Your task to perform on an android device: Open wifi settings Image 0: 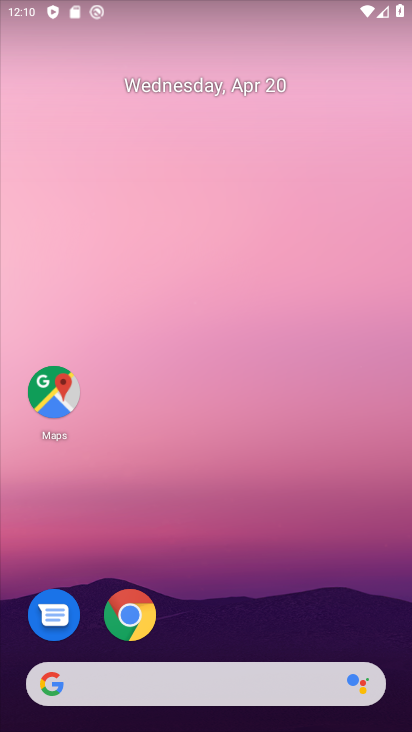
Step 0: drag from (186, 579) to (179, 137)
Your task to perform on an android device: Open wifi settings Image 1: 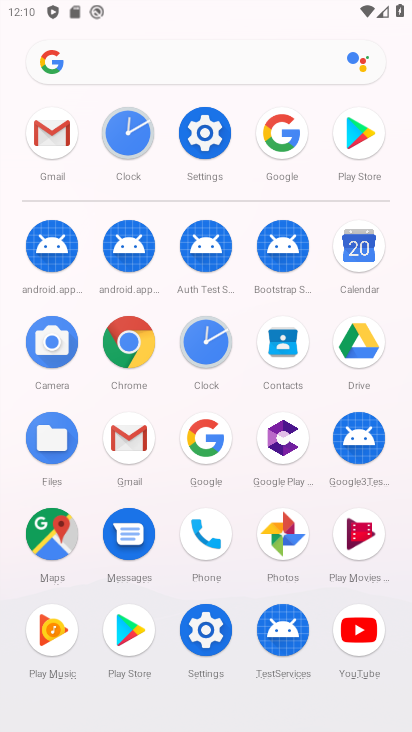
Step 1: click (197, 134)
Your task to perform on an android device: Open wifi settings Image 2: 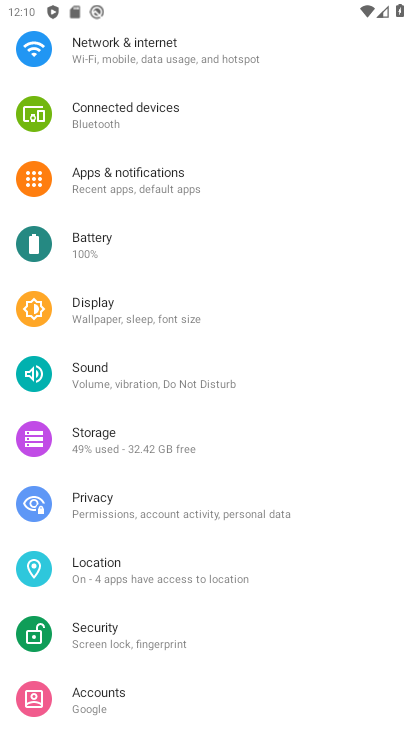
Step 2: drag from (134, 65) to (163, 507)
Your task to perform on an android device: Open wifi settings Image 3: 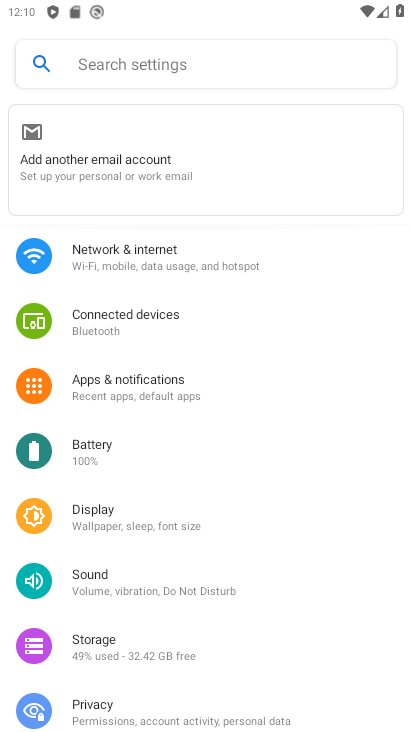
Step 3: click (111, 263)
Your task to perform on an android device: Open wifi settings Image 4: 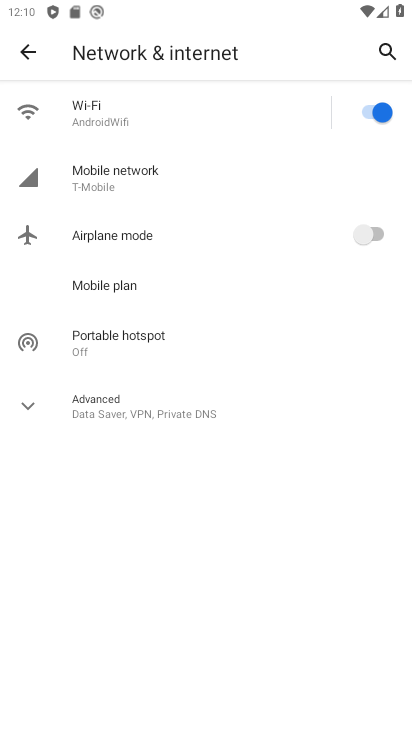
Step 4: click (130, 101)
Your task to perform on an android device: Open wifi settings Image 5: 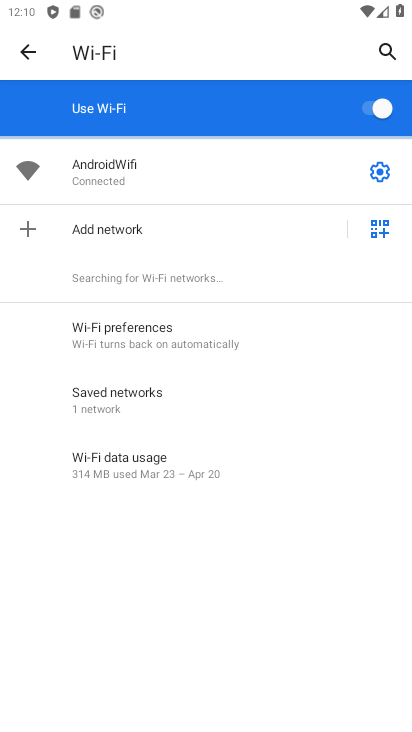
Step 5: click (384, 168)
Your task to perform on an android device: Open wifi settings Image 6: 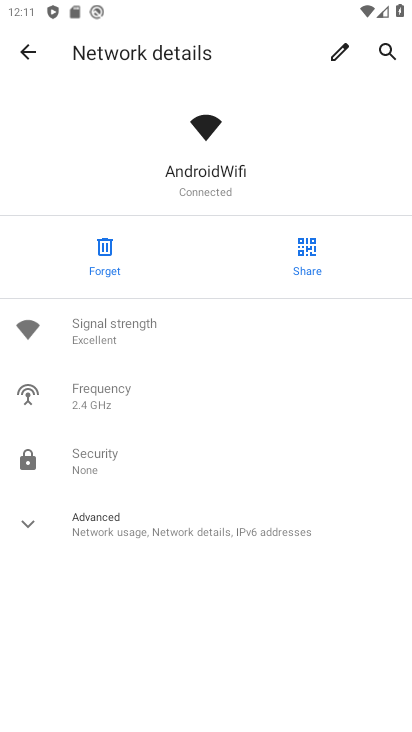
Step 6: task complete